Your task to perform on an android device: Open the phone app and click the voicemail tab. Image 0: 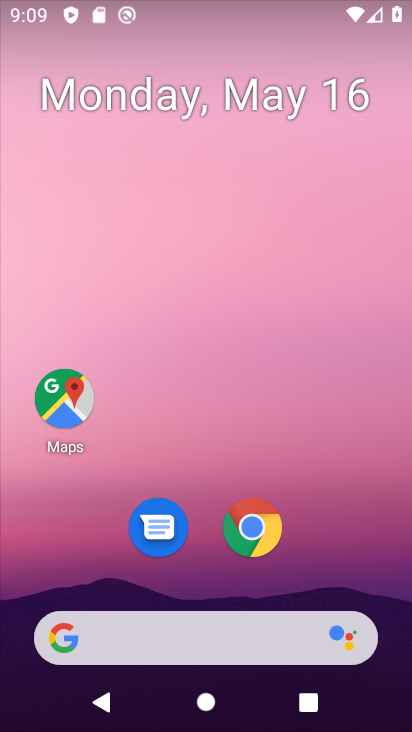
Step 0: drag from (328, 593) to (350, 0)
Your task to perform on an android device: Open the phone app and click the voicemail tab. Image 1: 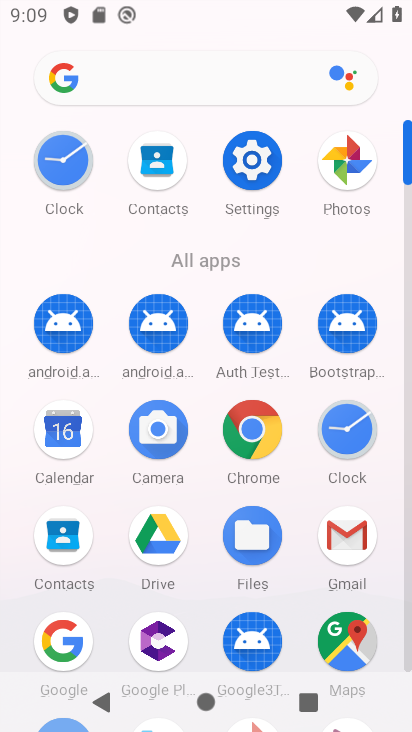
Step 1: drag from (411, 551) to (403, 477)
Your task to perform on an android device: Open the phone app and click the voicemail tab. Image 2: 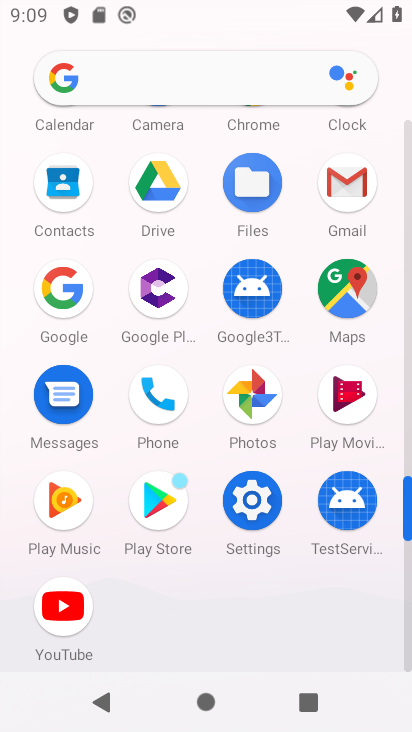
Step 2: click (144, 410)
Your task to perform on an android device: Open the phone app and click the voicemail tab. Image 3: 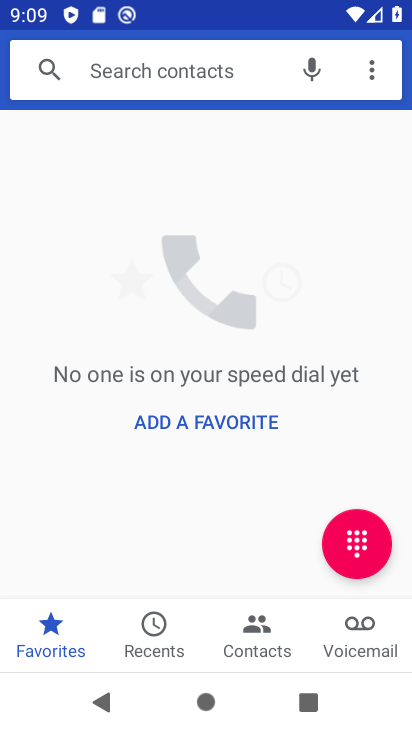
Step 3: click (360, 659)
Your task to perform on an android device: Open the phone app and click the voicemail tab. Image 4: 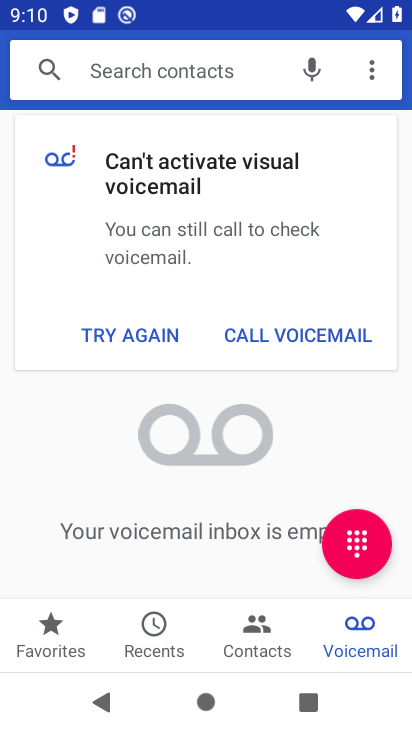
Step 4: task complete